Your task to perform on an android device: Show me the alarms in the clock app Image 0: 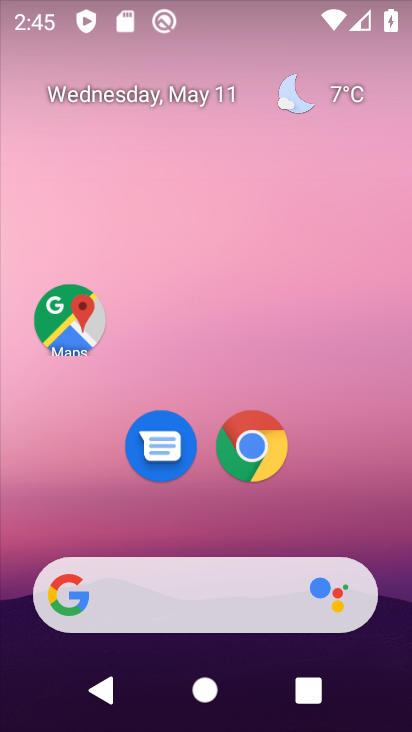
Step 0: drag from (385, 545) to (202, 159)
Your task to perform on an android device: Show me the alarms in the clock app Image 1: 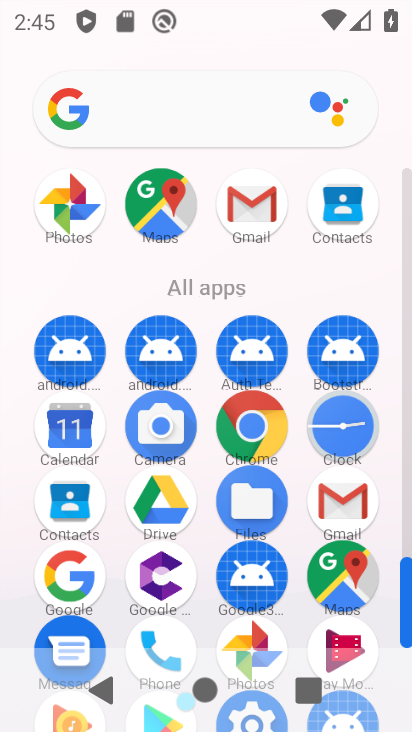
Step 1: click (345, 432)
Your task to perform on an android device: Show me the alarms in the clock app Image 2: 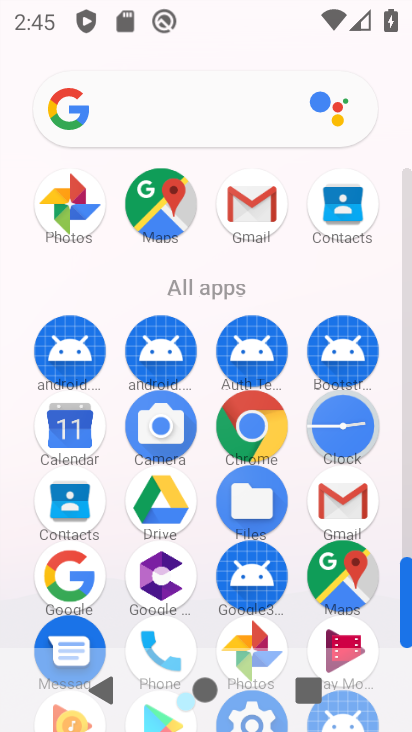
Step 2: click (343, 433)
Your task to perform on an android device: Show me the alarms in the clock app Image 3: 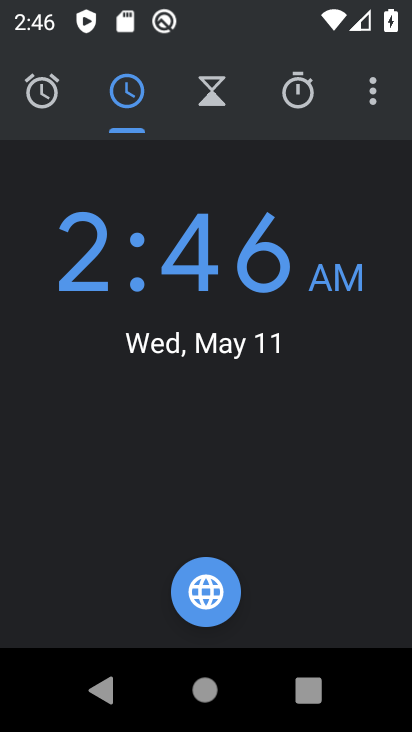
Step 3: click (367, 96)
Your task to perform on an android device: Show me the alarms in the clock app Image 4: 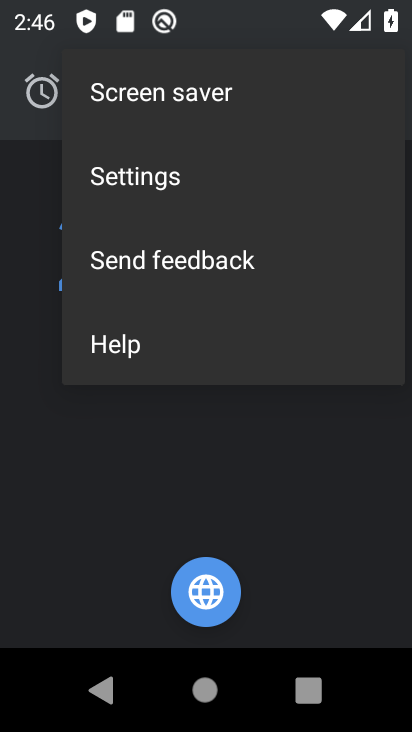
Step 4: click (159, 178)
Your task to perform on an android device: Show me the alarms in the clock app Image 5: 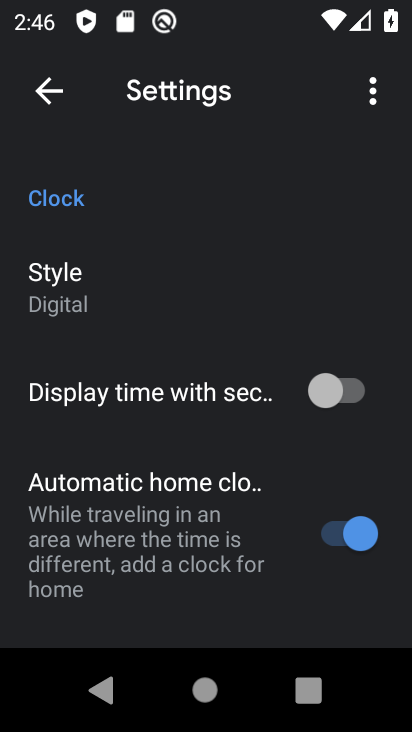
Step 5: click (329, 385)
Your task to perform on an android device: Show me the alarms in the clock app Image 6: 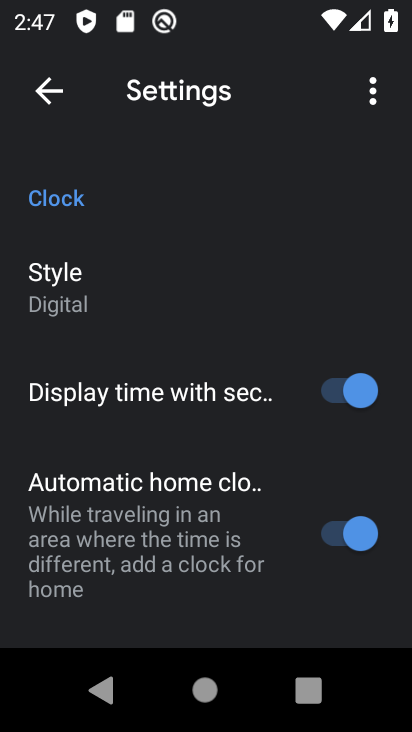
Step 6: click (47, 91)
Your task to perform on an android device: Show me the alarms in the clock app Image 7: 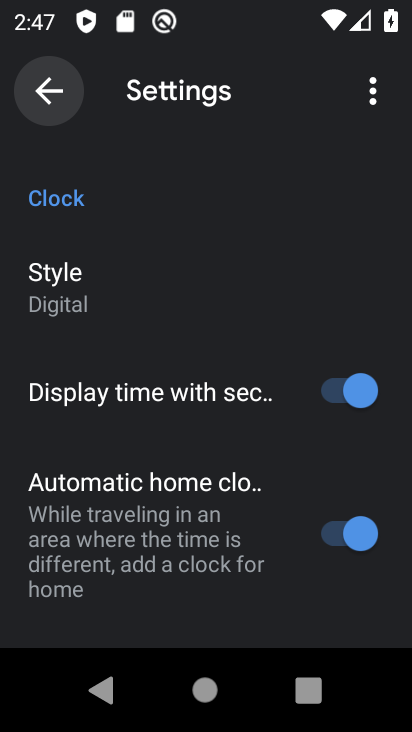
Step 7: click (47, 91)
Your task to perform on an android device: Show me the alarms in the clock app Image 8: 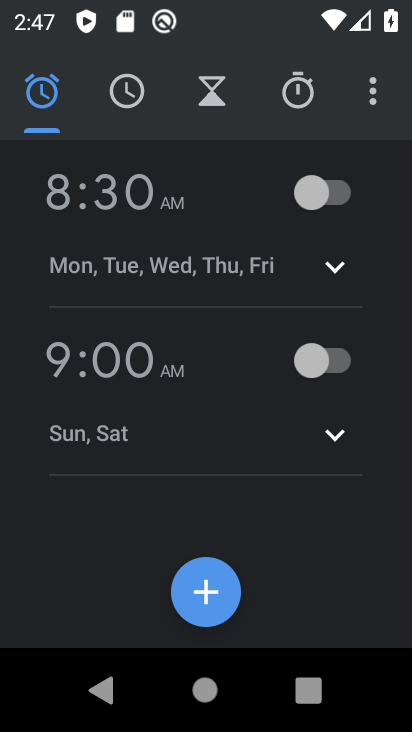
Step 8: click (311, 198)
Your task to perform on an android device: Show me the alarms in the clock app Image 9: 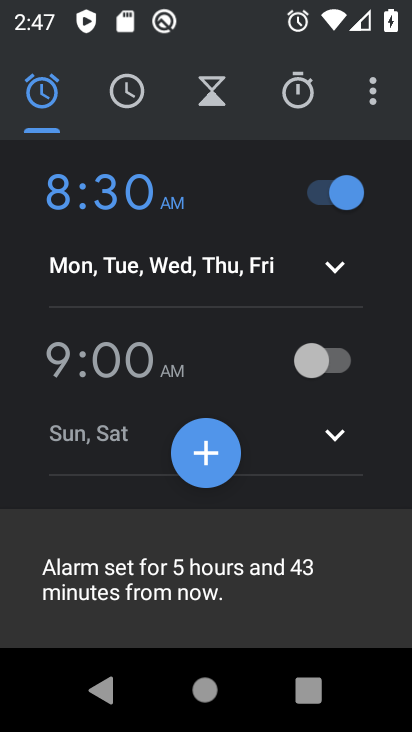
Step 9: click (311, 198)
Your task to perform on an android device: Show me the alarms in the clock app Image 10: 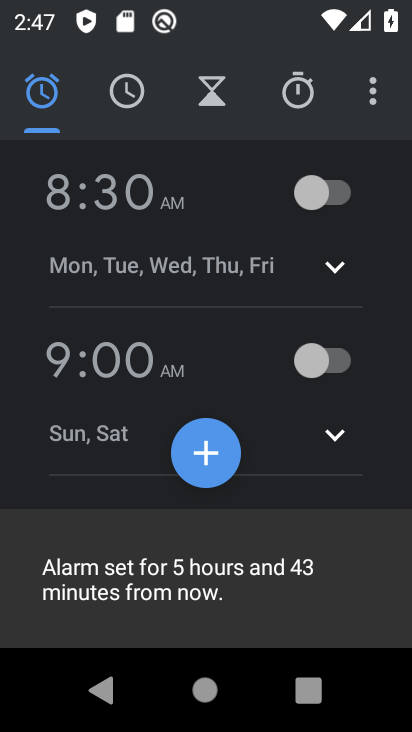
Step 10: click (345, 190)
Your task to perform on an android device: Show me the alarms in the clock app Image 11: 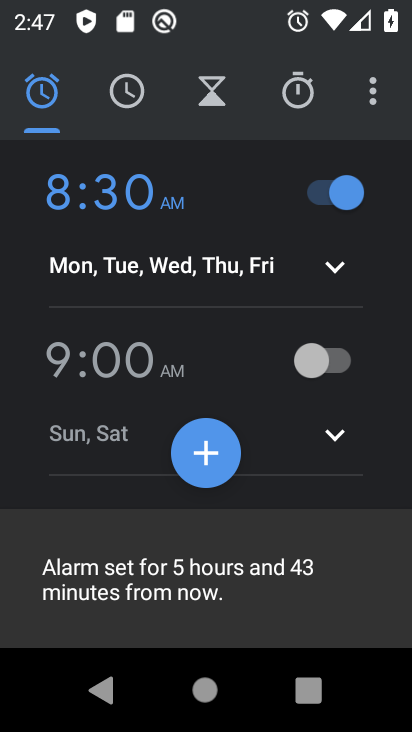
Step 11: click (342, 199)
Your task to perform on an android device: Show me the alarms in the clock app Image 12: 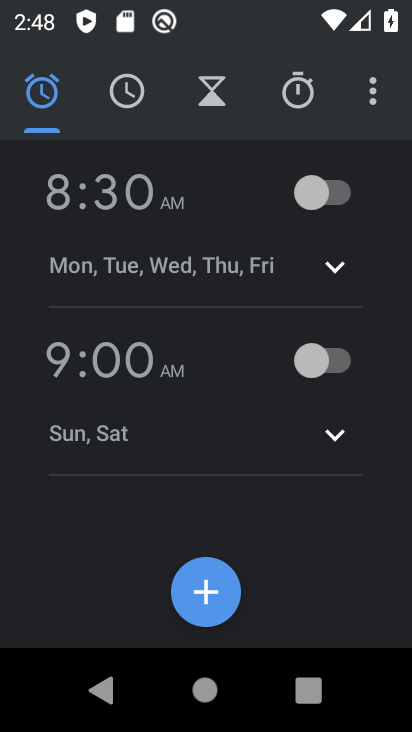
Step 12: task complete